Your task to perform on an android device: Show me the alarms in the clock app Image 0: 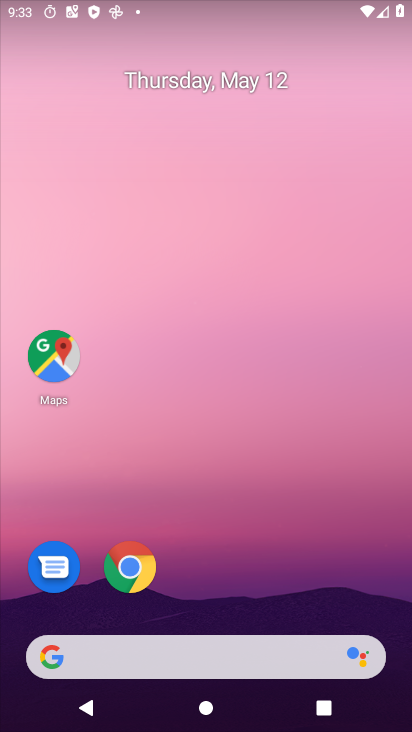
Step 0: drag from (272, 620) to (297, 113)
Your task to perform on an android device: Show me the alarms in the clock app Image 1: 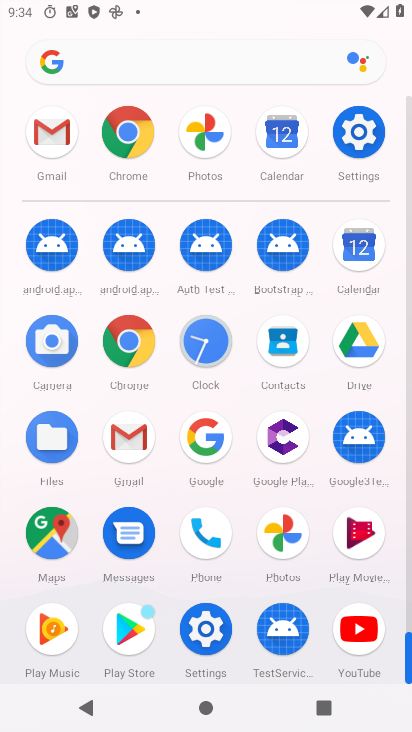
Step 1: click (210, 345)
Your task to perform on an android device: Show me the alarms in the clock app Image 2: 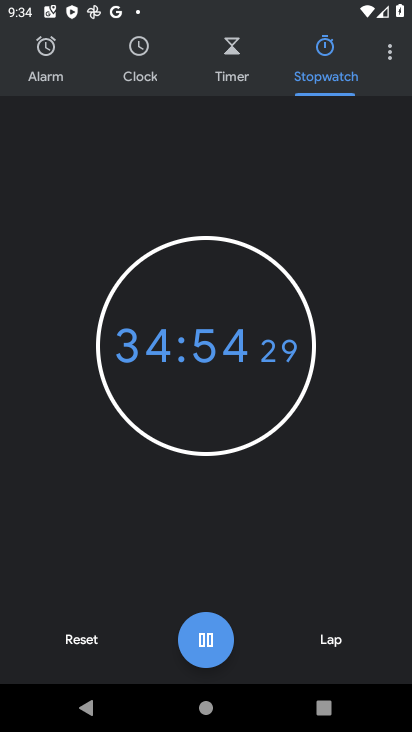
Step 2: click (54, 64)
Your task to perform on an android device: Show me the alarms in the clock app Image 3: 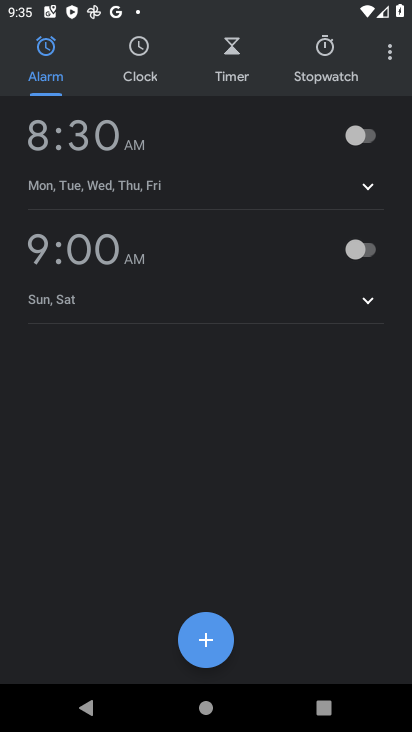
Step 3: task complete